Your task to perform on an android device: turn on the 12-hour format for clock Image 0: 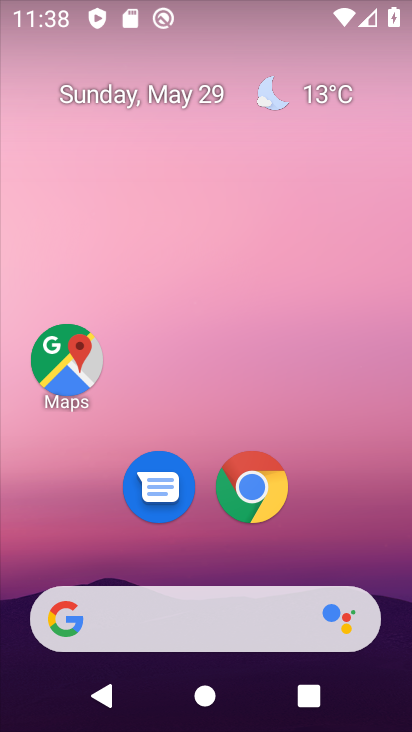
Step 0: drag from (364, 565) to (353, 154)
Your task to perform on an android device: turn on the 12-hour format for clock Image 1: 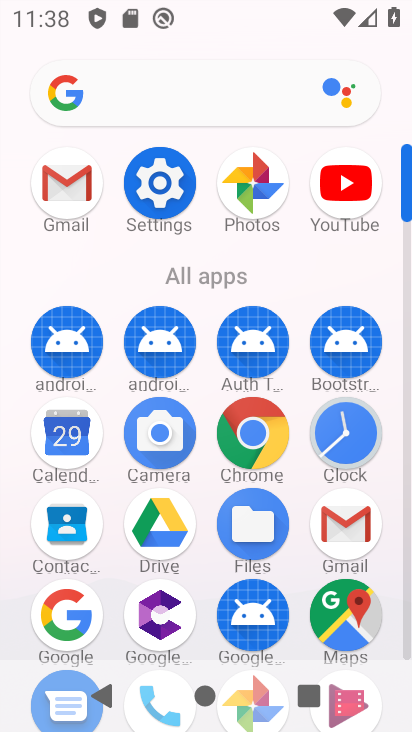
Step 1: click (345, 448)
Your task to perform on an android device: turn on the 12-hour format for clock Image 2: 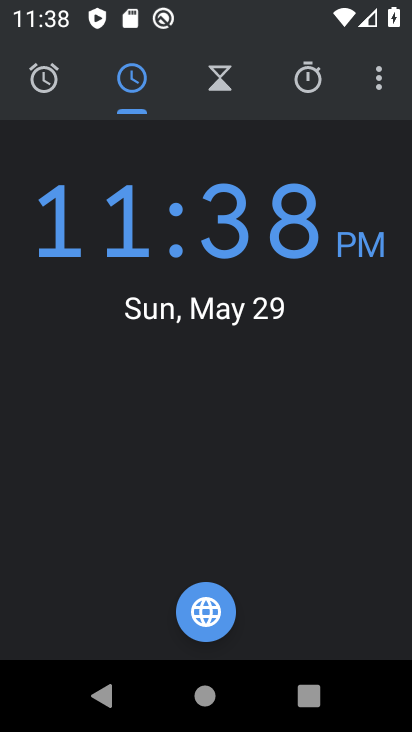
Step 2: click (379, 96)
Your task to perform on an android device: turn on the 12-hour format for clock Image 3: 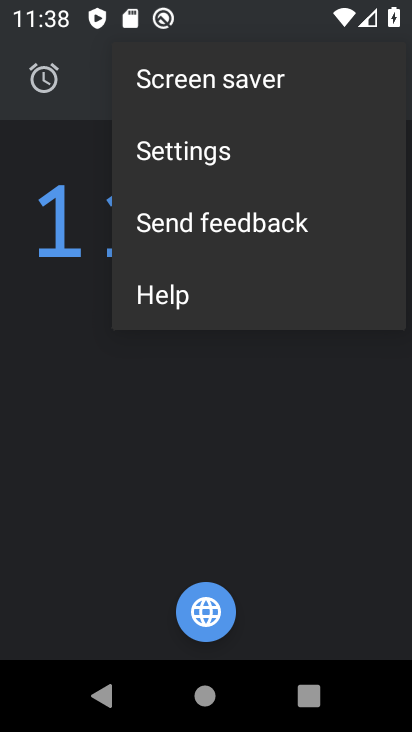
Step 3: click (190, 147)
Your task to perform on an android device: turn on the 12-hour format for clock Image 4: 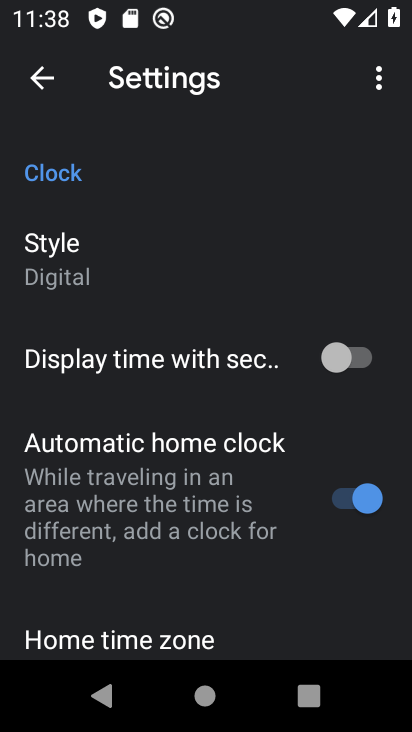
Step 4: drag from (209, 621) to (185, 258)
Your task to perform on an android device: turn on the 12-hour format for clock Image 5: 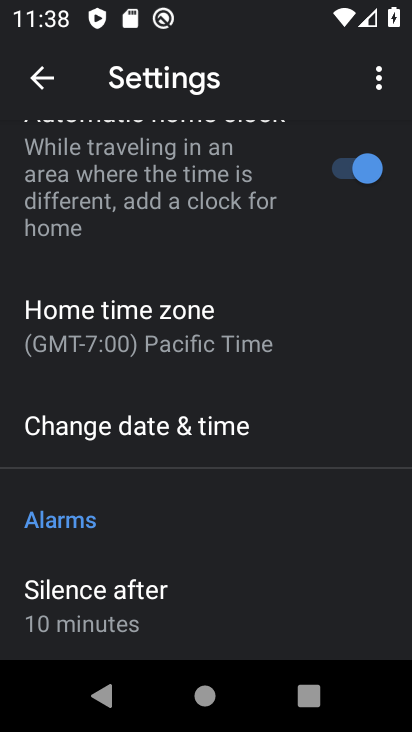
Step 5: drag from (162, 684) to (132, 348)
Your task to perform on an android device: turn on the 12-hour format for clock Image 6: 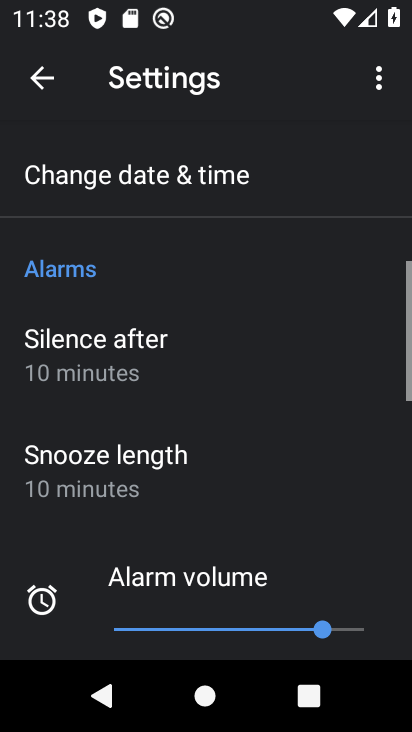
Step 6: click (146, 192)
Your task to perform on an android device: turn on the 12-hour format for clock Image 7: 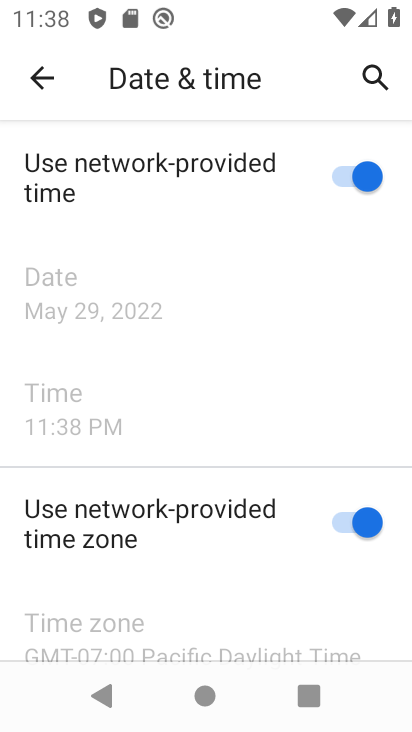
Step 7: task complete